Your task to perform on an android device: turn off javascript in the chrome app Image 0: 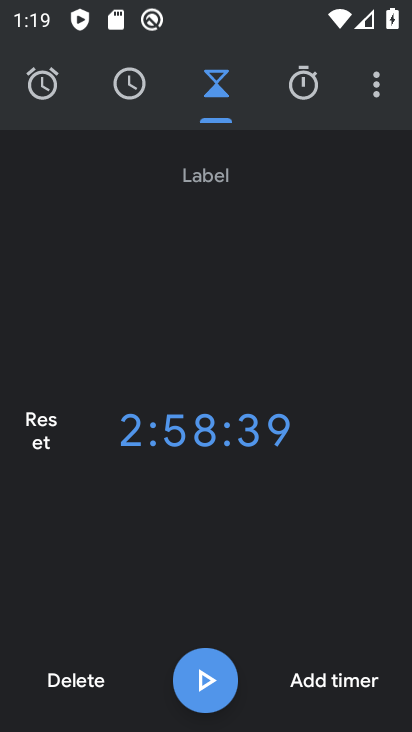
Step 0: press home button
Your task to perform on an android device: turn off javascript in the chrome app Image 1: 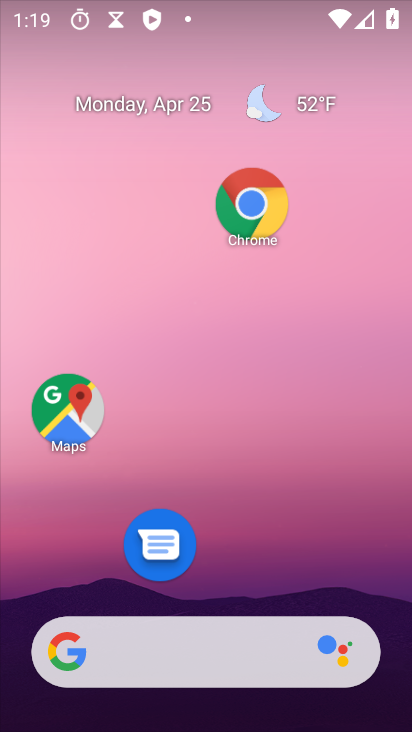
Step 1: drag from (314, 552) to (316, 235)
Your task to perform on an android device: turn off javascript in the chrome app Image 2: 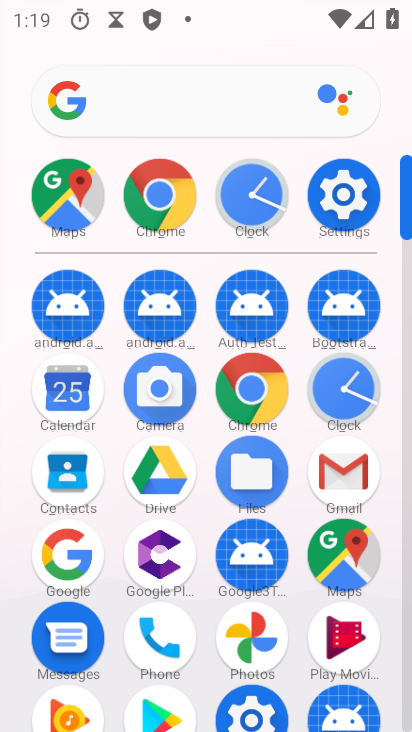
Step 2: click (166, 181)
Your task to perform on an android device: turn off javascript in the chrome app Image 3: 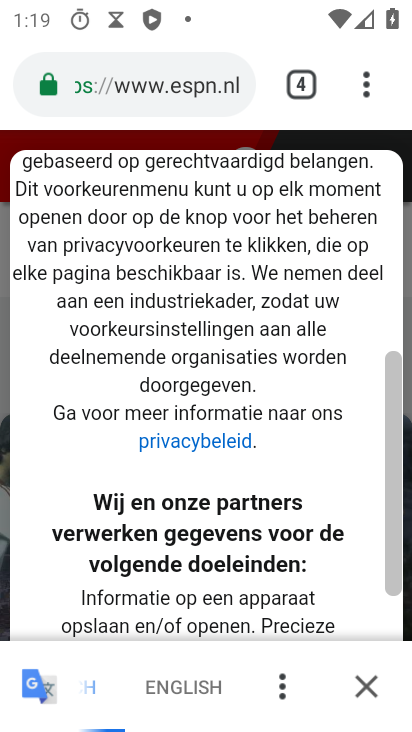
Step 3: click (356, 83)
Your task to perform on an android device: turn off javascript in the chrome app Image 4: 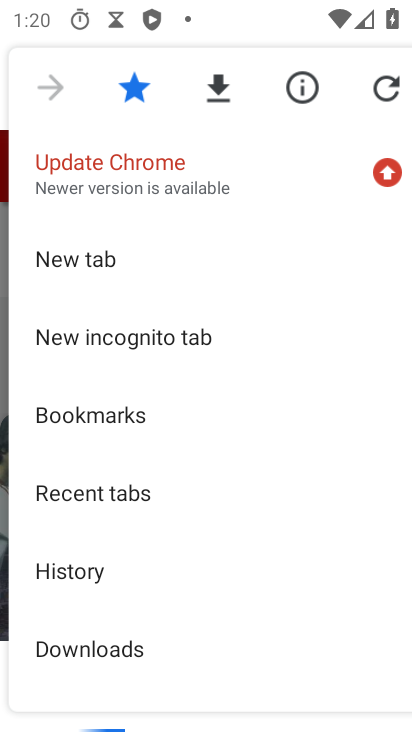
Step 4: drag from (101, 666) to (222, 217)
Your task to perform on an android device: turn off javascript in the chrome app Image 5: 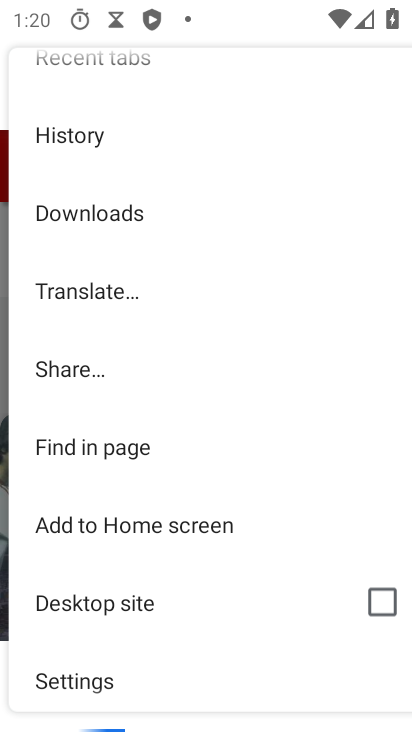
Step 5: click (93, 671)
Your task to perform on an android device: turn off javascript in the chrome app Image 6: 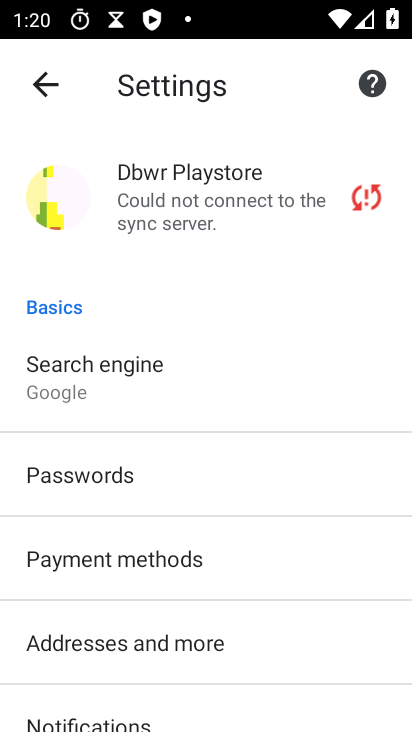
Step 6: drag from (84, 653) to (259, 243)
Your task to perform on an android device: turn off javascript in the chrome app Image 7: 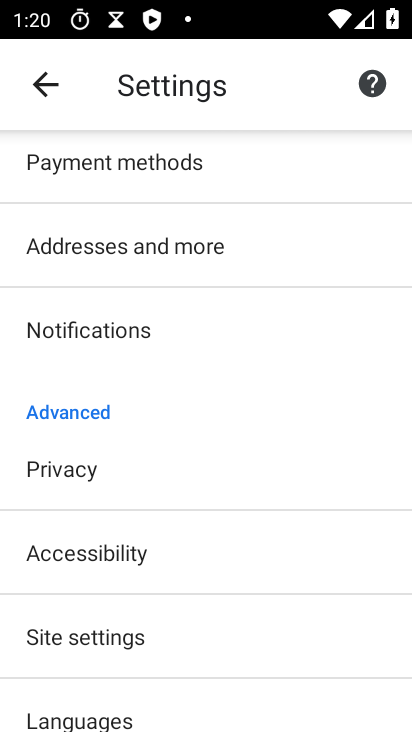
Step 7: click (113, 636)
Your task to perform on an android device: turn off javascript in the chrome app Image 8: 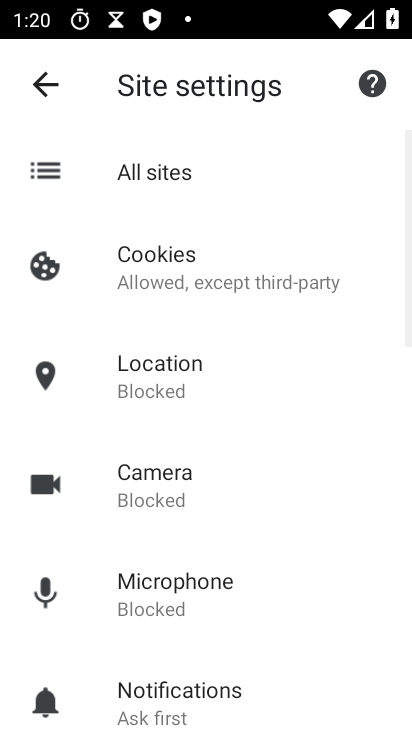
Step 8: drag from (136, 603) to (139, 428)
Your task to perform on an android device: turn off javascript in the chrome app Image 9: 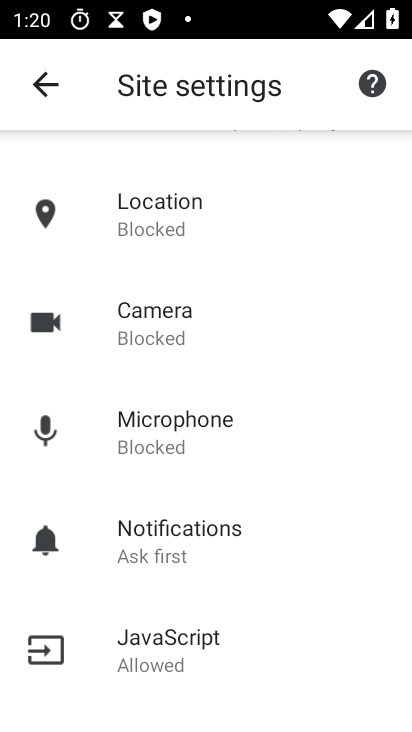
Step 9: click (159, 644)
Your task to perform on an android device: turn off javascript in the chrome app Image 10: 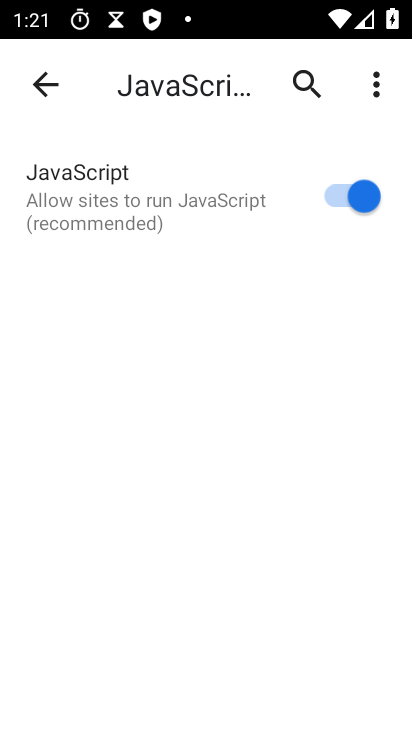
Step 10: click (327, 190)
Your task to perform on an android device: turn off javascript in the chrome app Image 11: 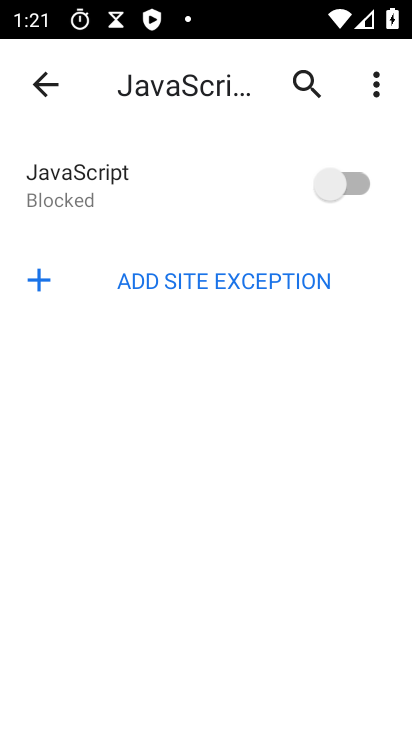
Step 11: task complete